Your task to perform on an android device: Open battery settings Image 0: 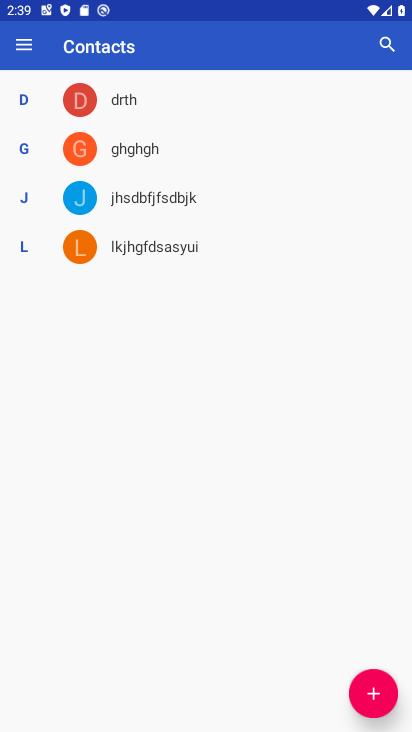
Step 0: press home button
Your task to perform on an android device: Open battery settings Image 1: 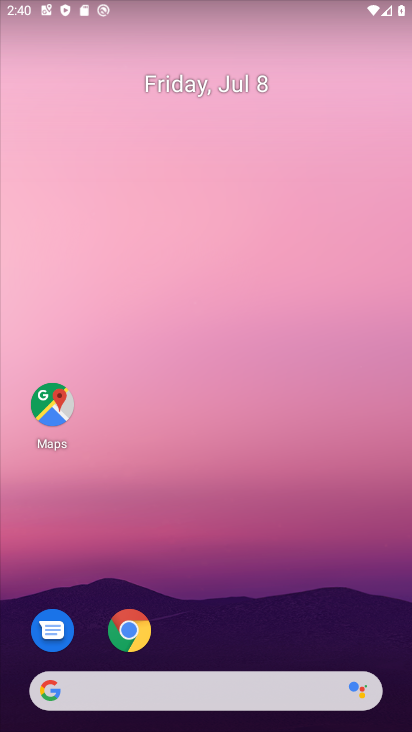
Step 1: drag from (332, 620) to (190, 98)
Your task to perform on an android device: Open battery settings Image 2: 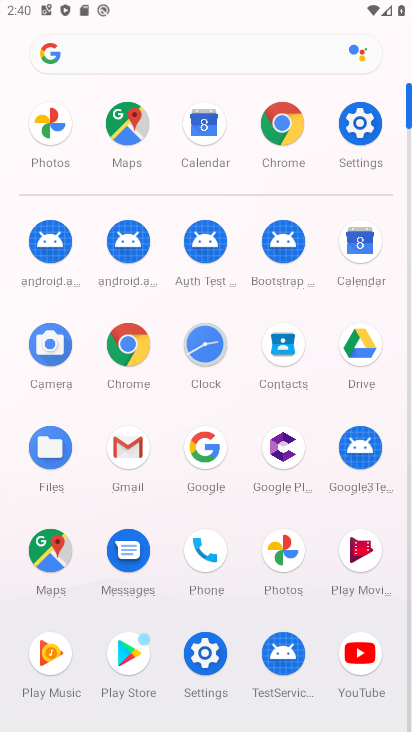
Step 2: click (346, 150)
Your task to perform on an android device: Open battery settings Image 3: 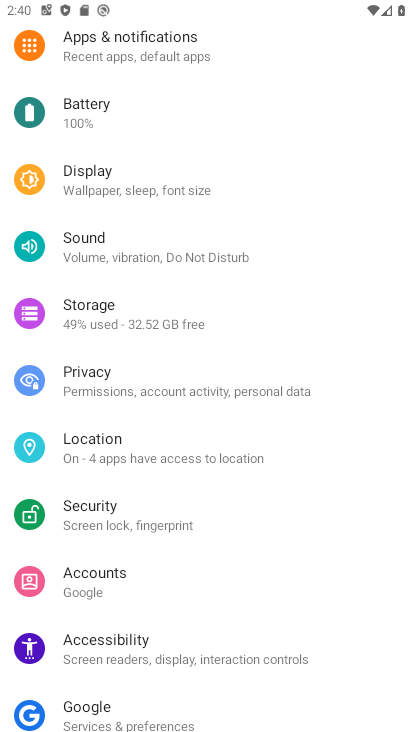
Step 3: click (123, 113)
Your task to perform on an android device: Open battery settings Image 4: 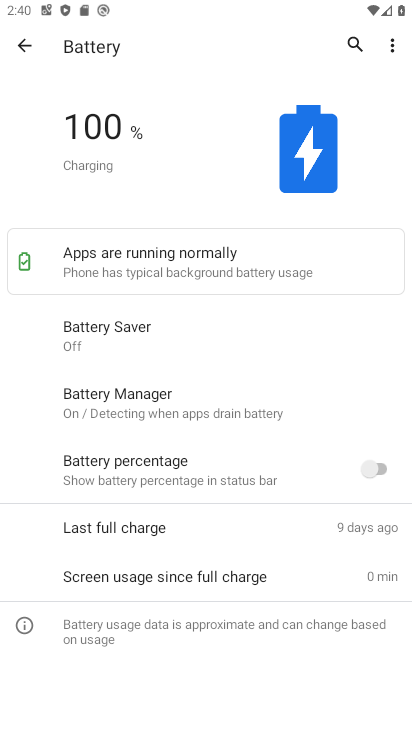
Step 4: task complete